Your task to perform on an android device: turn off smart reply in the gmail app Image 0: 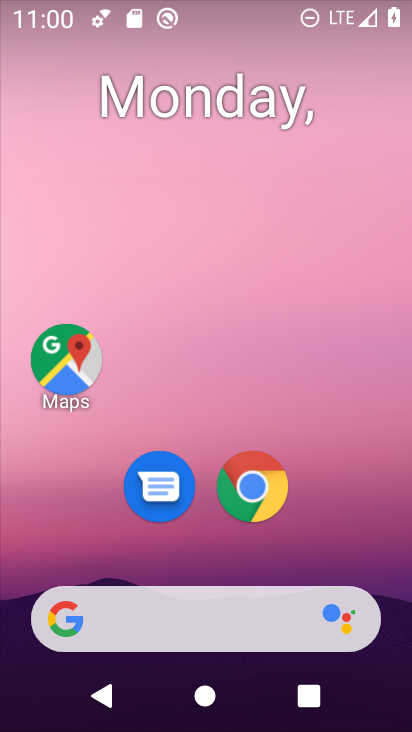
Step 0: drag from (34, 638) to (250, 176)
Your task to perform on an android device: turn off smart reply in the gmail app Image 1: 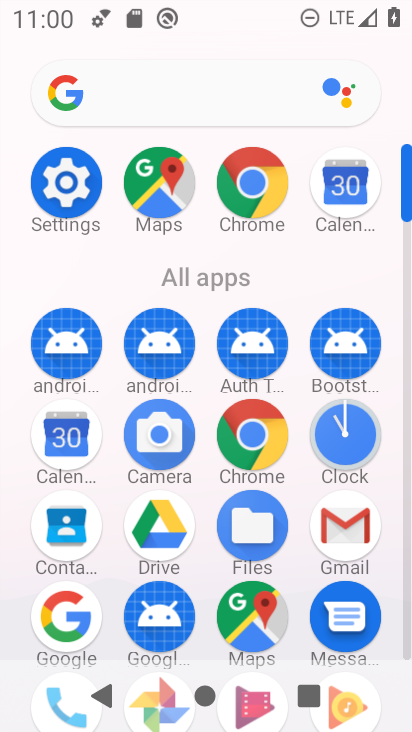
Step 1: click (350, 527)
Your task to perform on an android device: turn off smart reply in the gmail app Image 2: 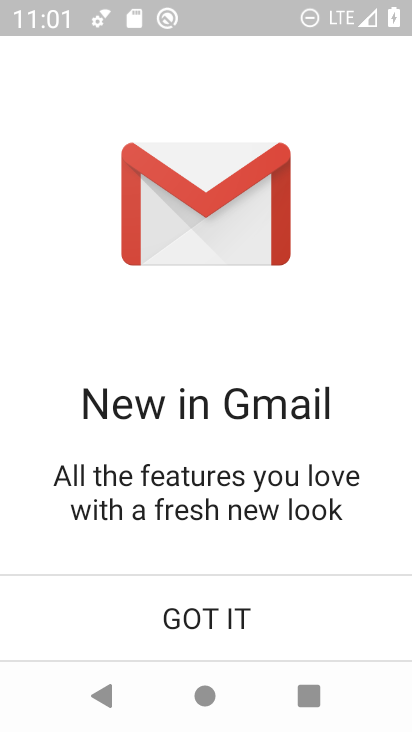
Step 2: click (213, 617)
Your task to perform on an android device: turn off smart reply in the gmail app Image 3: 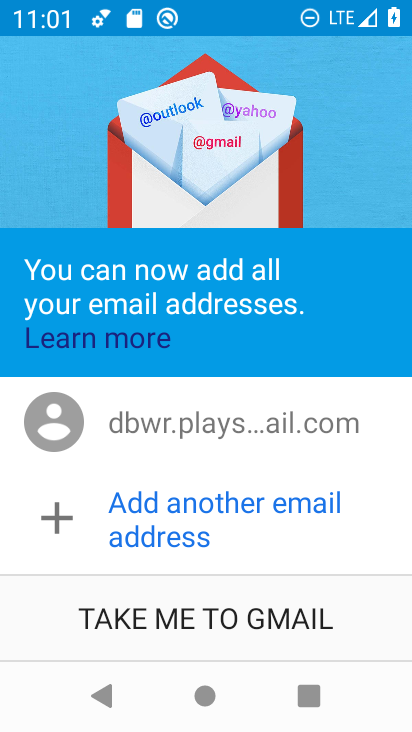
Step 3: click (141, 633)
Your task to perform on an android device: turn off smart reply in the gmail app Image 4: 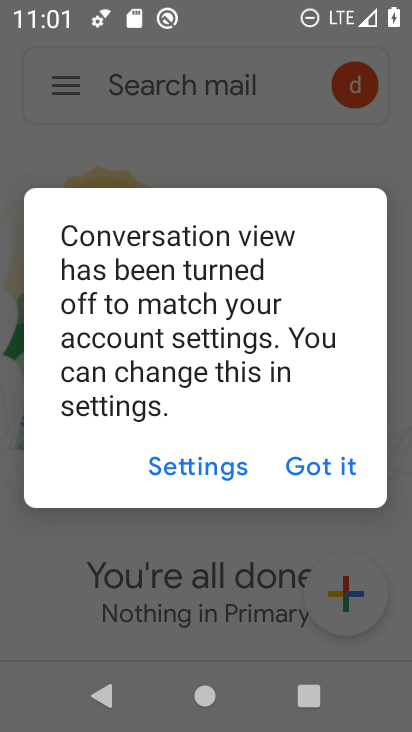
Step 4: click (302, 474)
Your task to perform on an android device: turn off smart reply in the gmail app Image 5: 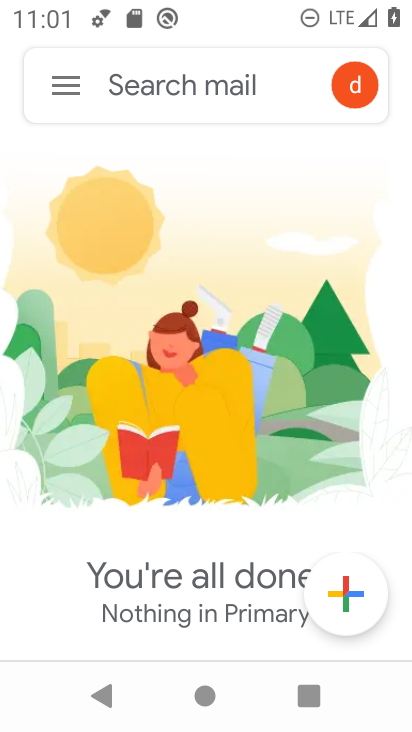
Step 5: click (69, 89)
Your task to perform on an android device: turn off smart reply in the gmail app Image 6: 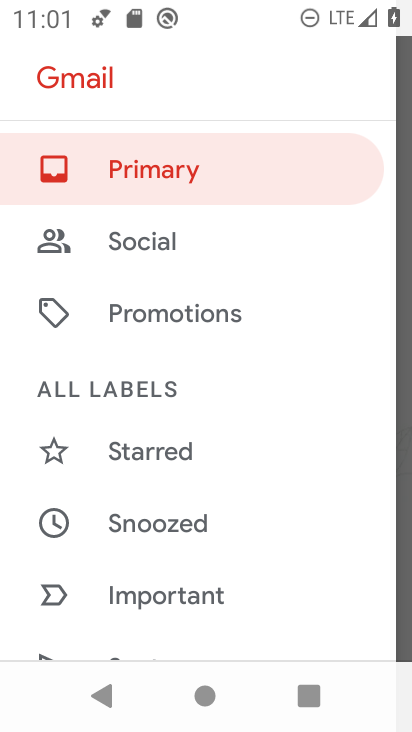
Step 6: drag from (25, 553) to (264, 125)
Your task to perform on an android device: turn off smart reply in the gmail app Image 7: 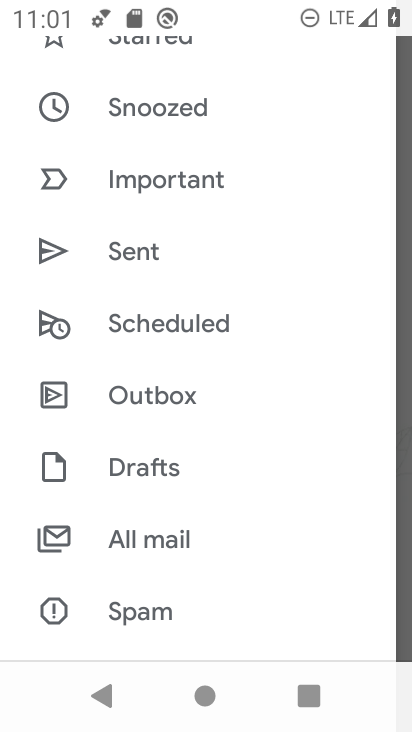
Step 7: drag from (12, 615) to (262, 221)
Your task to perform on an android device: turn off smart reply in the gmail app Image 8: 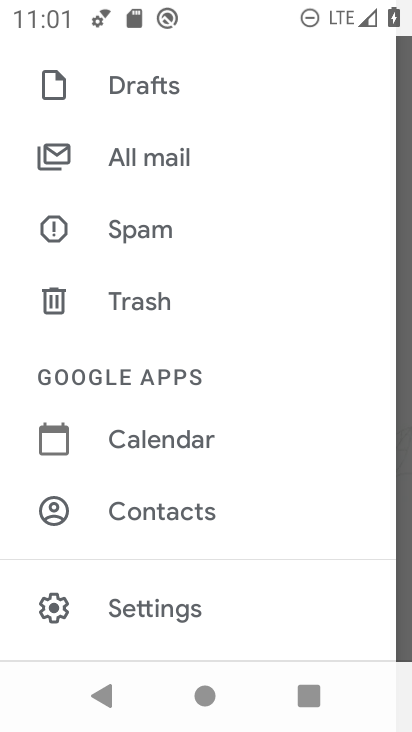
Step 8: click (105, 614)
Your task to perform on an android device: turn off smart reply in the gmail app Image 9: 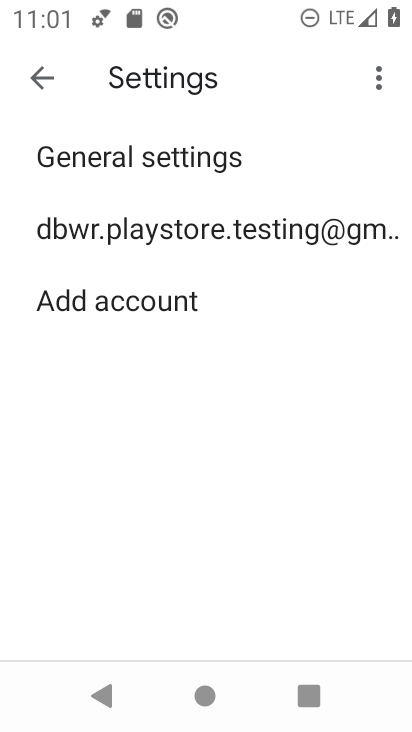
Step 9: click (205, 234)
Your task to perform on an android device: turn off smart reply in the gmail app Image 10: 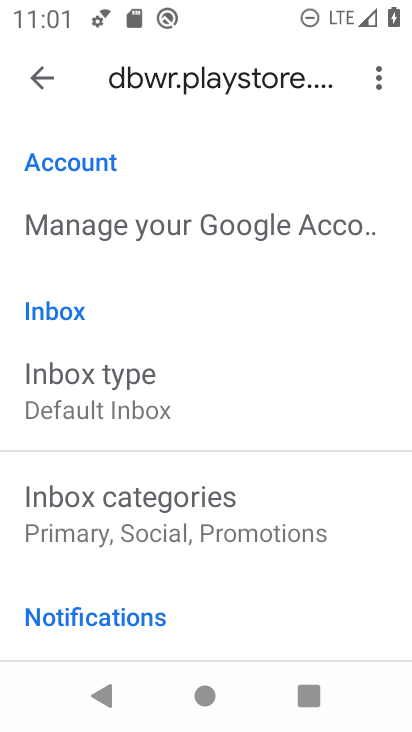
Step 10: drag from (21, 582) to (225, 236)
Your task to perform on an android device: turn off smart reply in the gmail app Image 11: 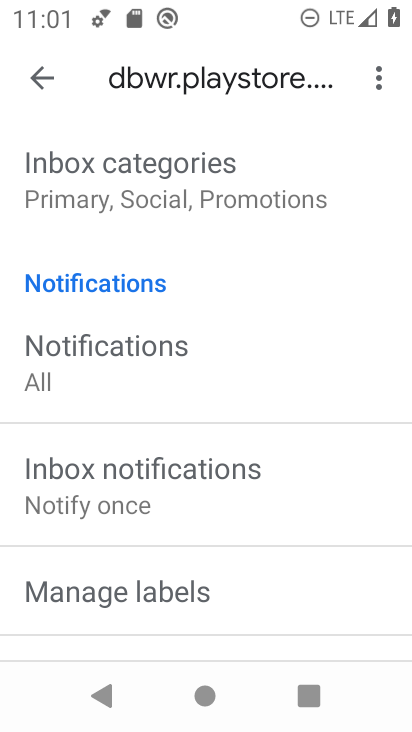
Step 11: drag from (70, 445) to (222, 225)
Your task to perform on an android device: turn off smart reply in the gmail app Image 12: 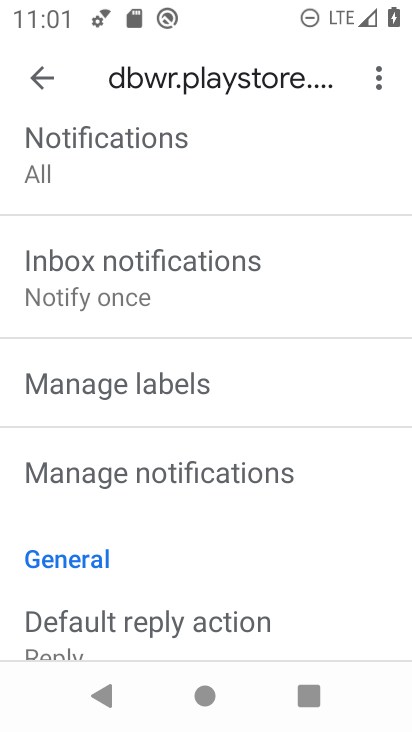
Step 12: drag from (5, 502) to (210, 280)
Your task to perform on an android device: turn off smart reply in the gmail app Image 13: 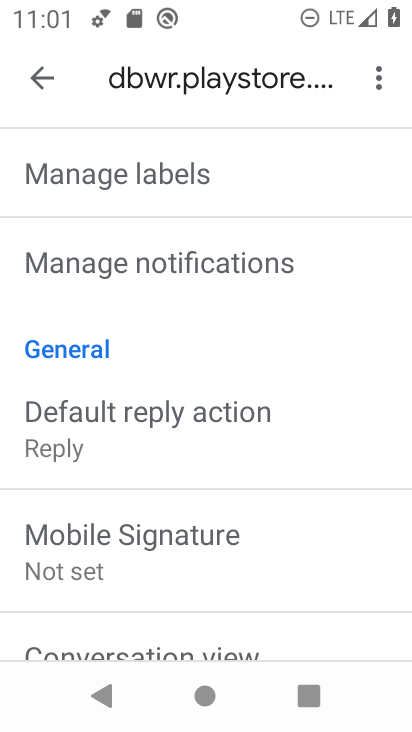
Step 13: drag from (43, 487) to (196, 270)
Your task to perform on an android device: turn off smart reply in the gmail app Image 14: 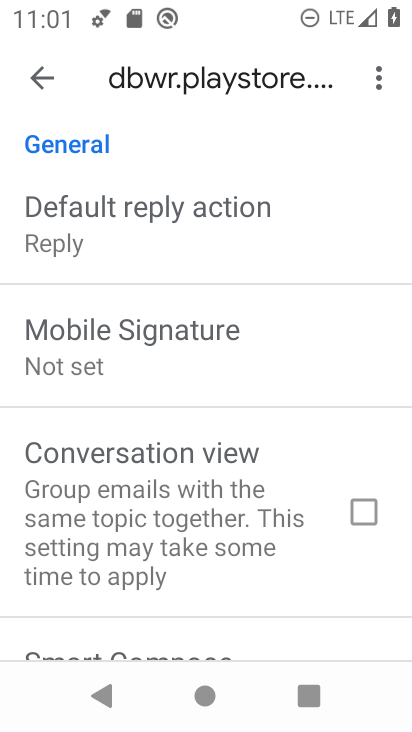
Step 14: drag from (71, 407) to (201, 233)
Your task to perform on an android device: turn off smart reply in the gmail app Image 15: 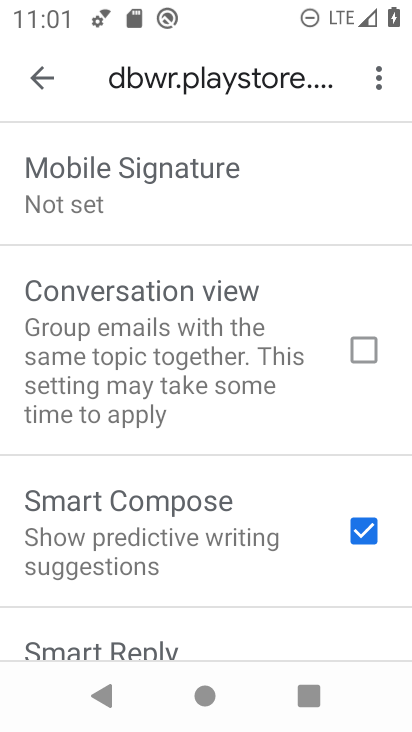
Step 15: drag from (37, 524) to (171, 300)
Your task to perform on an android device: turn off smart reply in the gmail app Image 16: 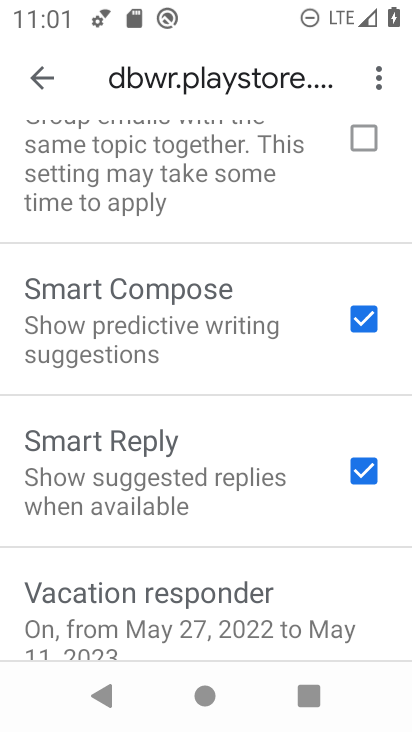
Step 16: click (362, 477)
Your task to perform on an android device: turn off smart reply in the gmail app Image 17: 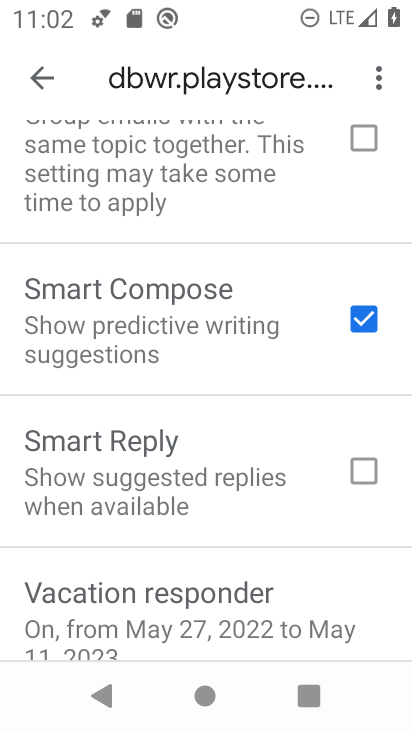
Step 17: task complete